Your task to perform on an android device: toggle improve location accuracy Image 0: 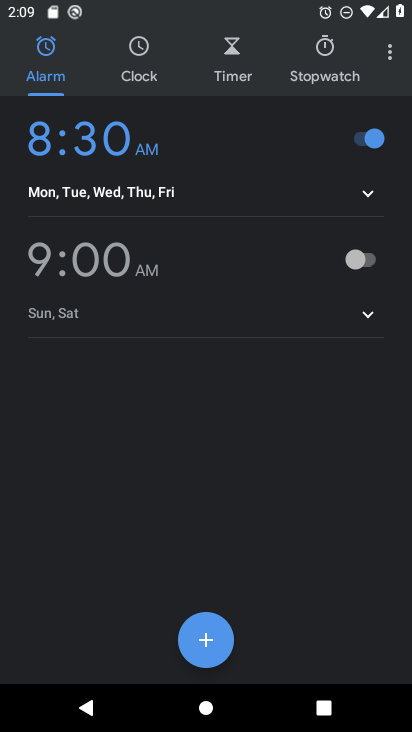
Step 0: press home button
Your task to perform on an android device: toggle improve location accuracy Image 1: 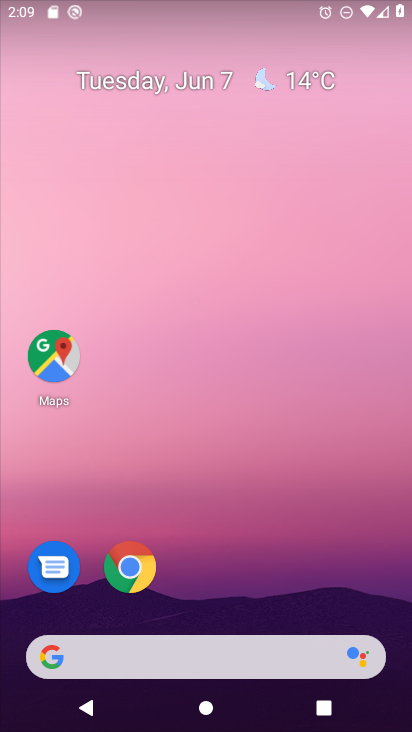
Step 1: drag from (313, 510) to (297, 78)
Your task to perform on an android device: toggle improve location accuracy Image 2: 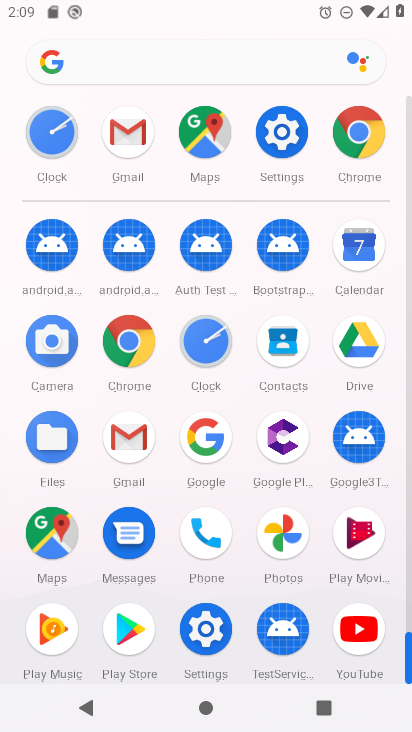
Step 2: click (283, 117)
Your task to perform on an android device: toggle improve location accuracy Image 3: 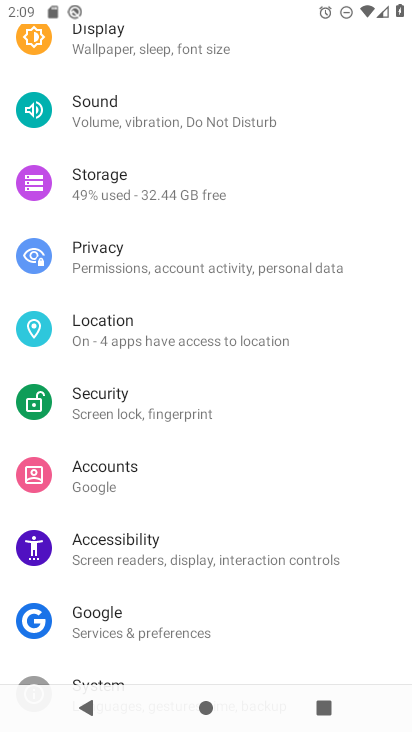
Step 3: click (135, 332)
Your task to perform on an android device: toggle improve location accuracy Image 4: 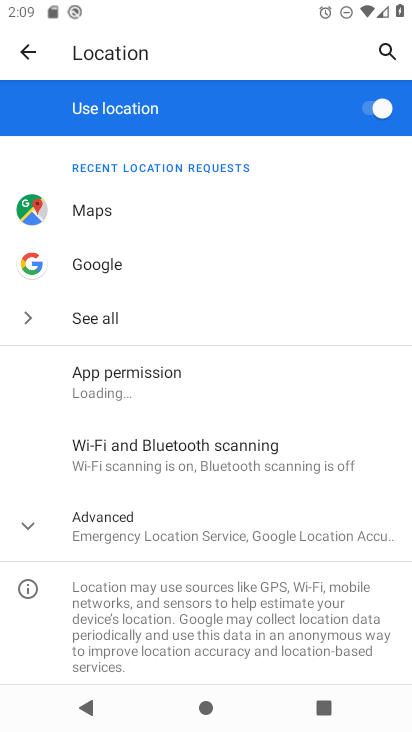
Step 4: drag from (139, 573) to (161, 204)
Your task to perform on an android device: toggle improve location accuracy Image 5: 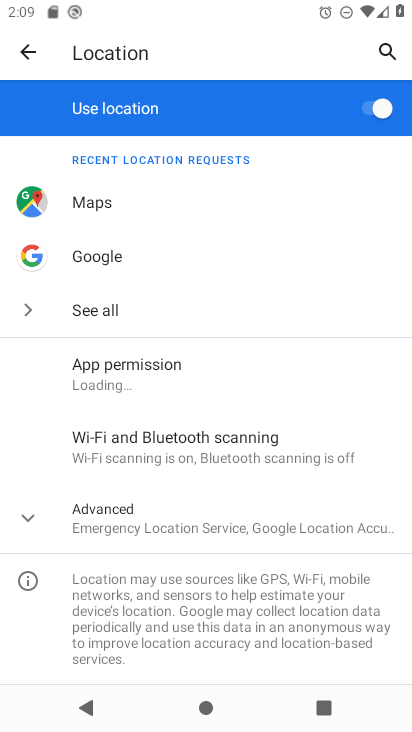
Step 5: click (88, 529)
Your task to perform on an android device: toggle improve location accuracy Image 6: 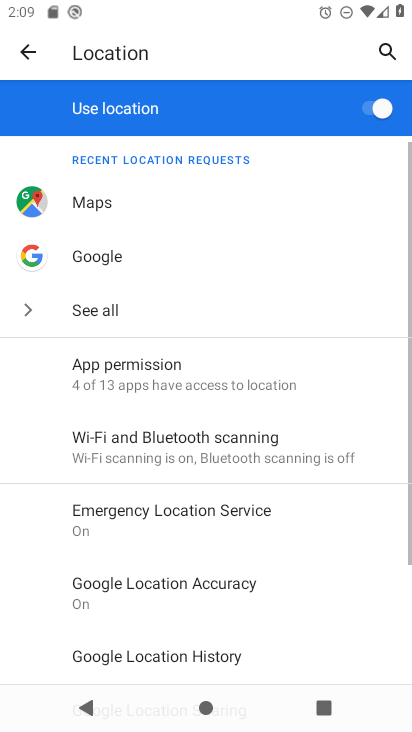
Step 6: drag from (113, 589) to (190, 182)
Your task to perform on an android device: toggle improve location accuracy Image 7: 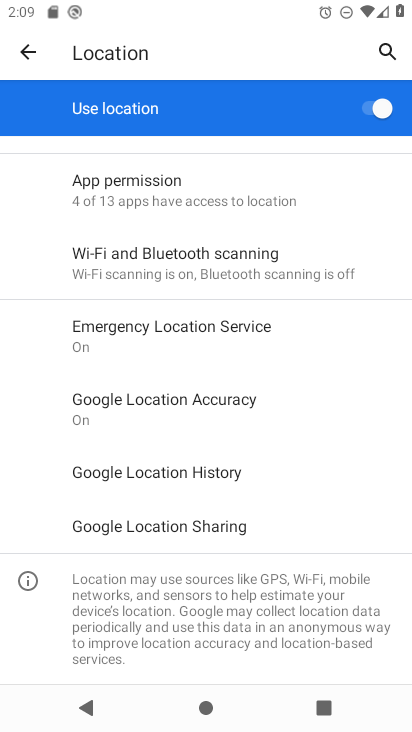
Step 7: click (146, 409)
Your task to perform on an android device: toggle improve location accuracy Image 8: 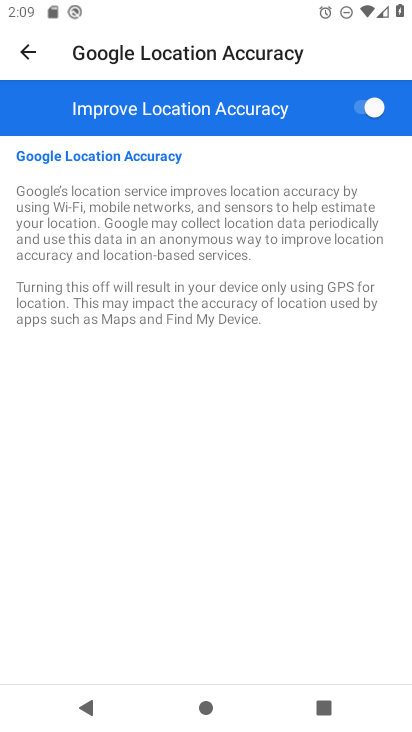
Step 8: click (370, 109)
Your task to perform on an android device: toggle improve location accuracy Image 9: 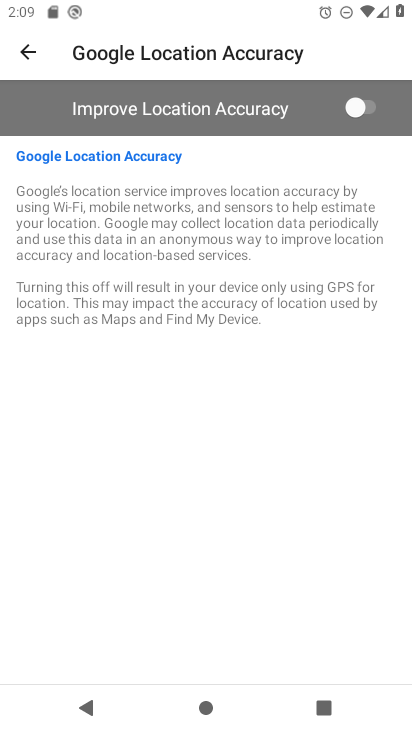
Step 9: task complete